Your task to perform on an android device: Open accessibility settings Image 0: 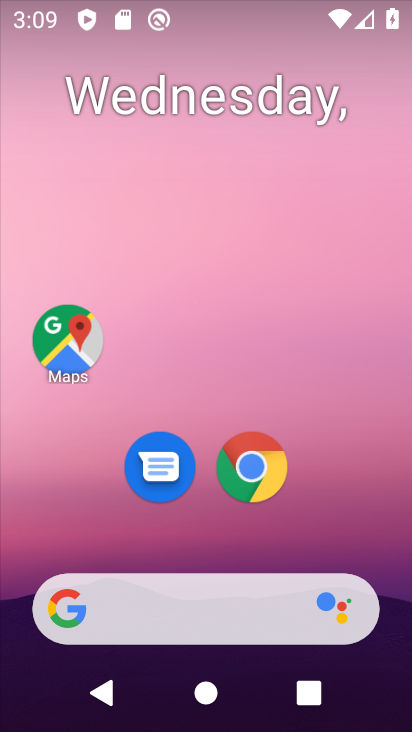
Step 0: drag from (395, 597) to (330, 170)
Your task to perform on an android device: Open accessibility settings Image 1: 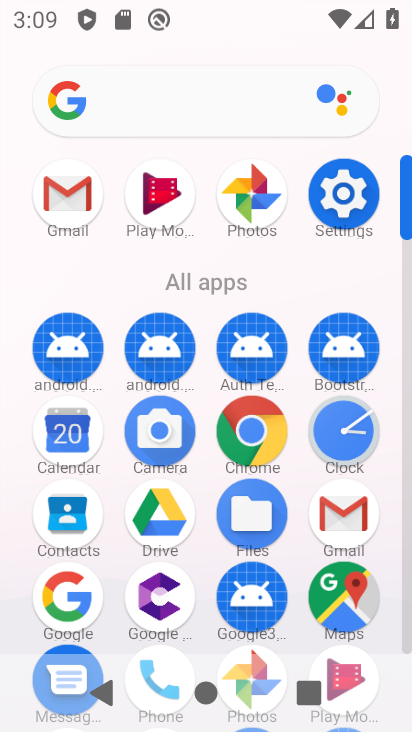
Step 1: click (407, 634)
Your task to perform on an android device: Open accessibility settings Image 2: 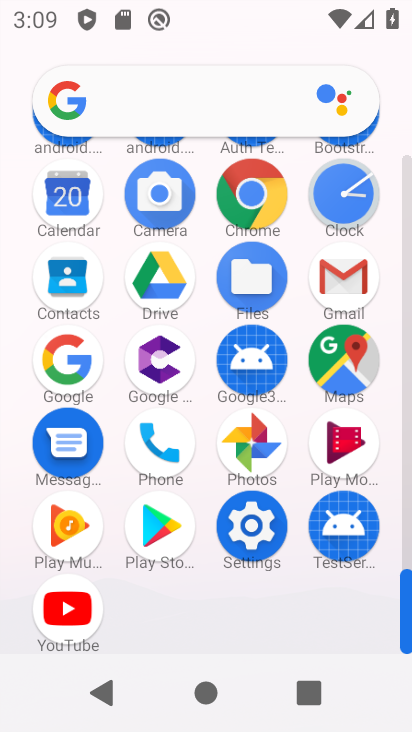
Step 2: click (248, 532)
Your task to perform on an android device: Open accessibility settings Image 3: 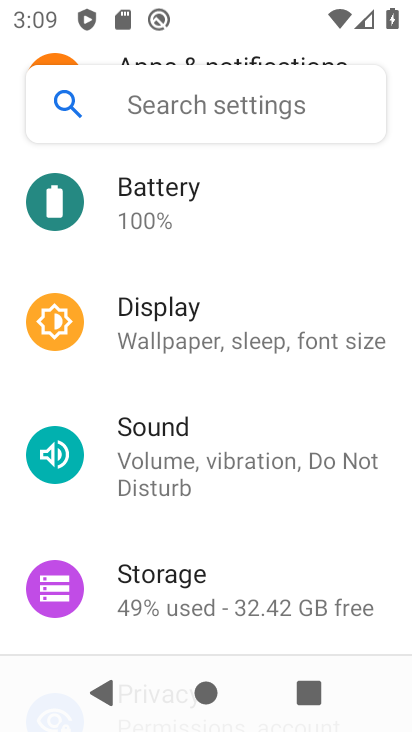
Step 3: drag from (279, 538) to (248, 230)
Your task to perform on an android device: Open accessibility settings Image 4: 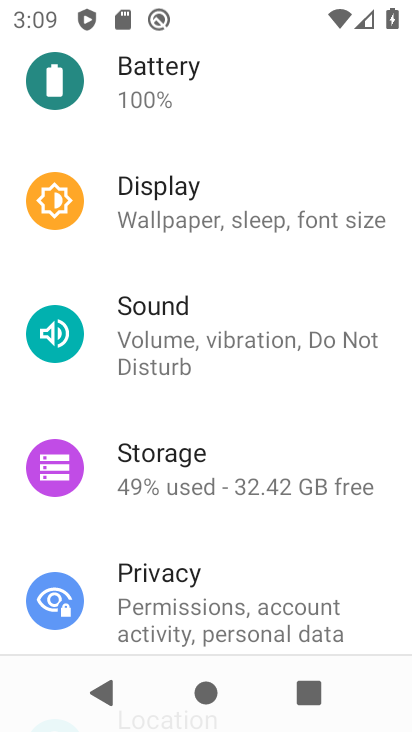
Step 4: drag from (213, 486) to (190, 223)
Your task to perform on an android device: Open accessibility settings Image 5: 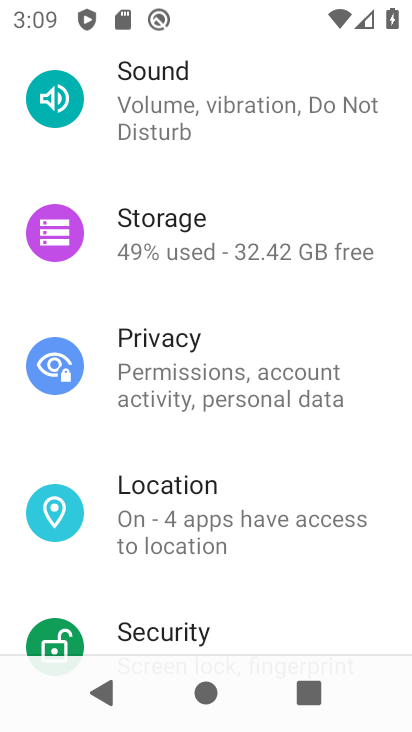
Step 5: drag from (212, 513) to (196, 200)
Your task to perform on an android device: Open accessibility settings Image 6: 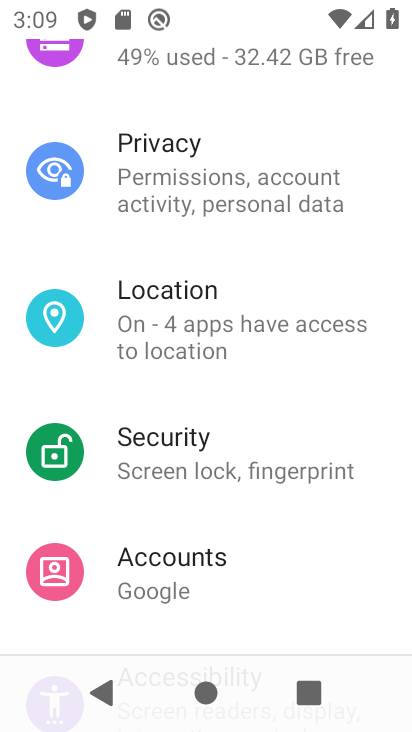
Step 6: drag from (228, 441) to (219, 124)
Your task to perform on an android device: Open accessibility settings Image 7: 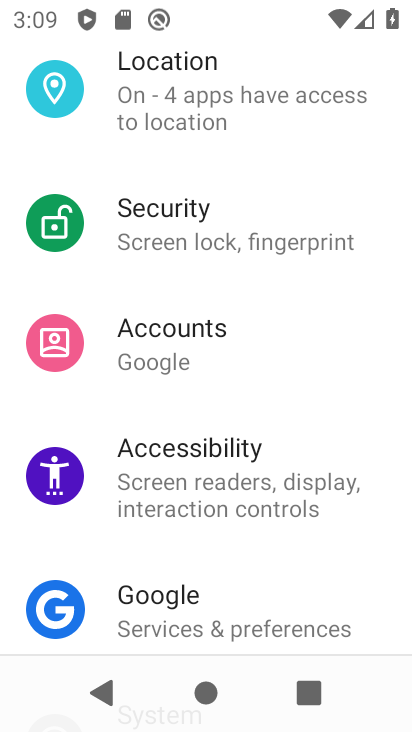
Step 7: click (175, 463)
Your task to perform on an android device: Open accessibility settings Image 8: 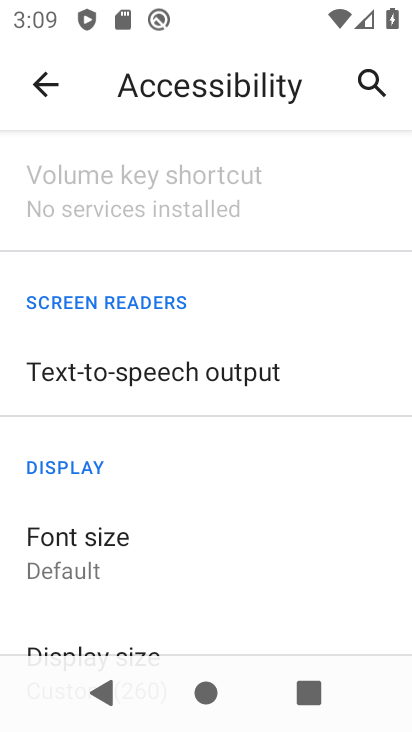
Step 8: task complete